Your task to perform on an android device: Go to location settings Image 0: 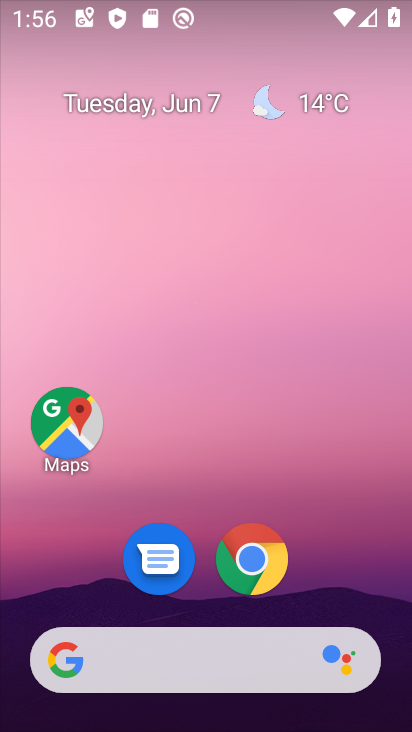
Step 0: drag from (309, 516) to (238, 13)
Your task to perform on an android device: Go to location settings Image 1: 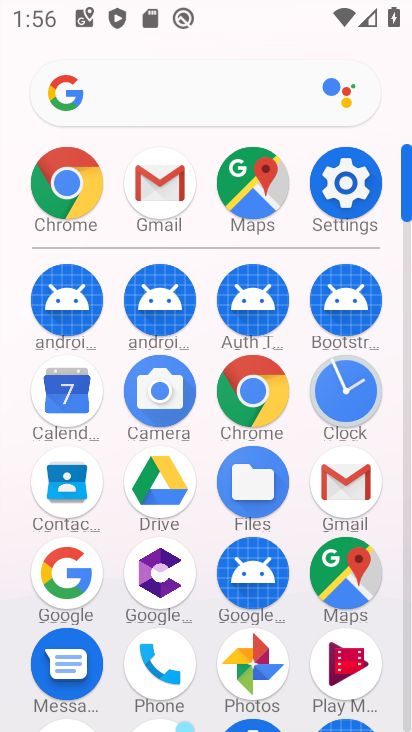
Step 1: click (343, 182)
Your task to perform on an android device: Go to location settings Image 2: 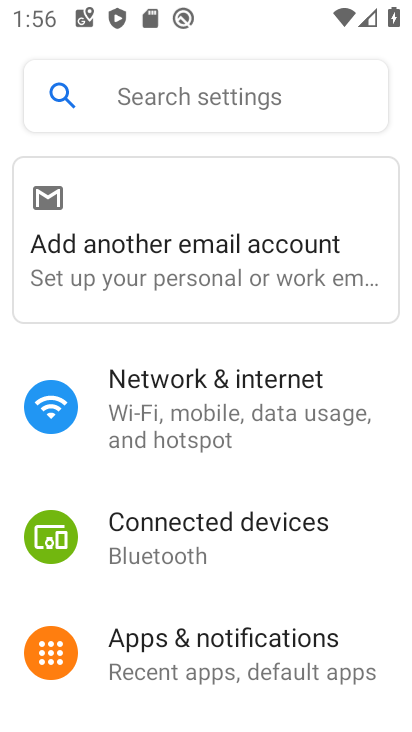
Step 2: drag from (268, 645) to (284, 194)
Your task to perform on an android device: Go to location settings Image 3: 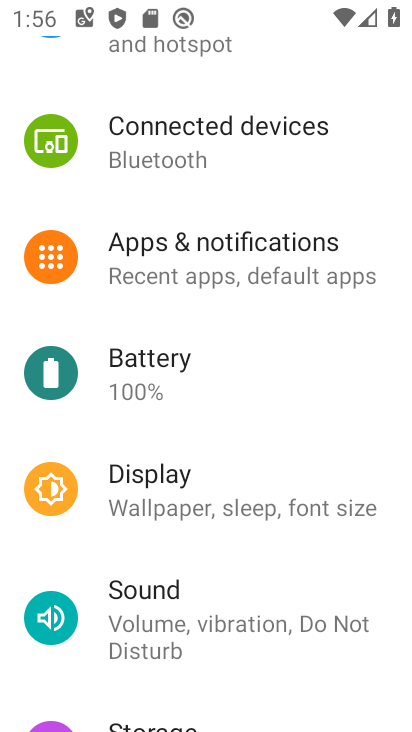
Step 3: drag from (258, 555) to (278, 215)
Your task to perform on an android device: Go to location settings Image 4: 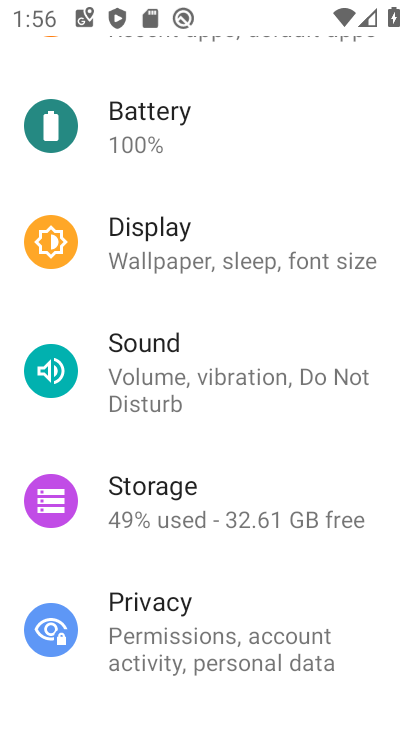
Step 4: drag from (237, 560) to (276, 179)
Your task to perform on an android device: Go to location settings Image 5: 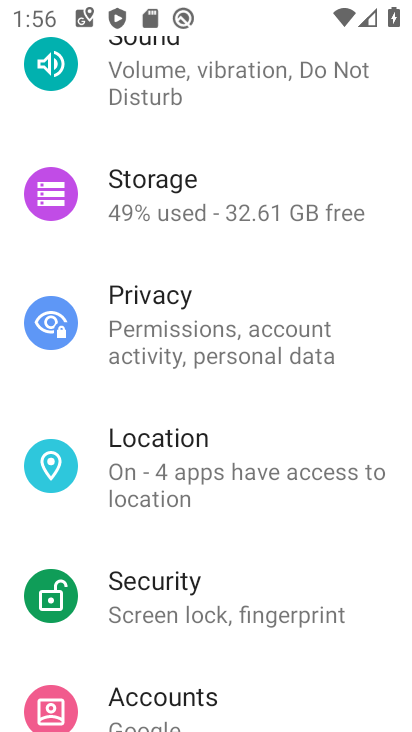
Step 5: click (180, 459)
Your task to perform on an android device: Go to location settings Image 6: 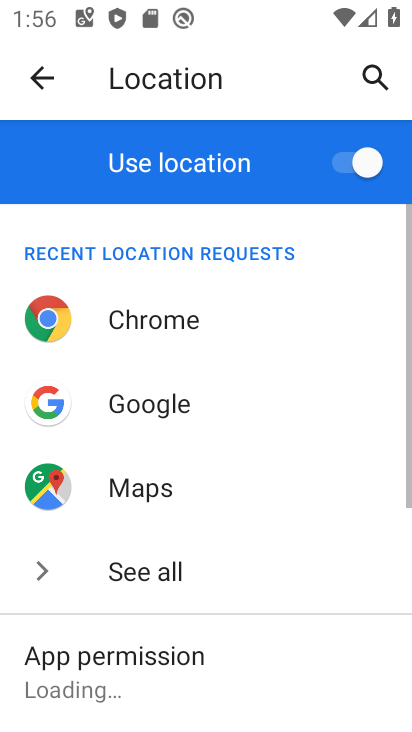
Step 6: drag from (258, 557) to (285, 164)
Your task to perform on an android device: Go to location settings Image 7: 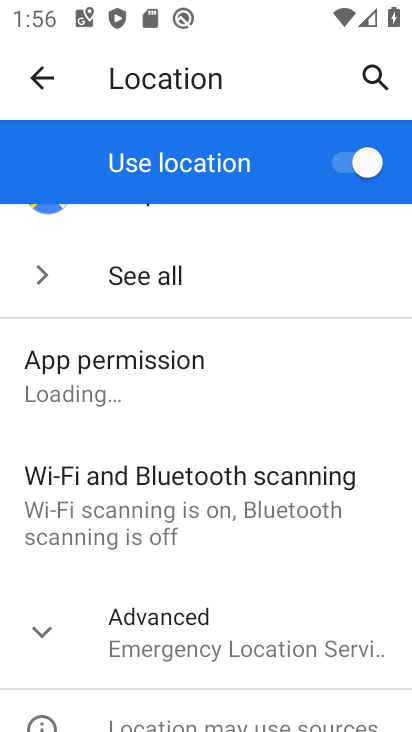
Step 7: click (45, 629)
Your task to perform on an android device: Go to location settings Image 8: 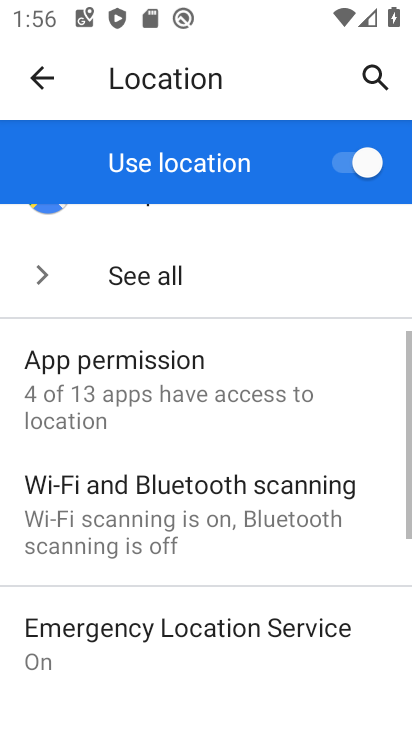
Step 8: task complete